Your task to perform on an android device: Go to display settings Image 0: 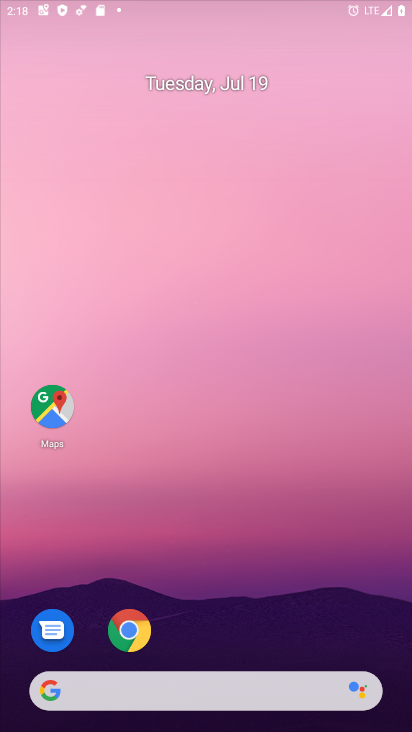
Step 0: press home button
Your task to perform on an android device: Go to display settings Image 1: 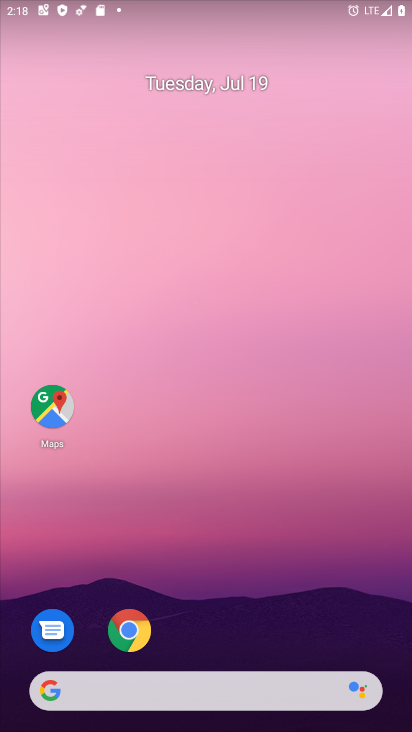
Step 1: drag from (219, 653) to (220, 64)
Your task to perform on an android device: Go to display settings Image 2: 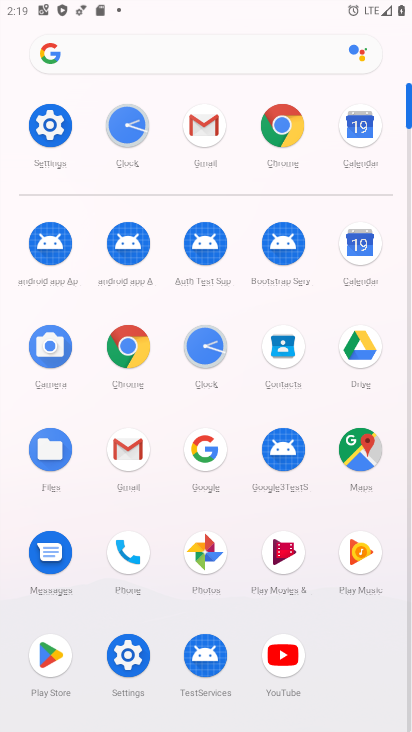
Step 2: click (124, 650)
Your task to perform on an android device: Go to display settings Image 3: 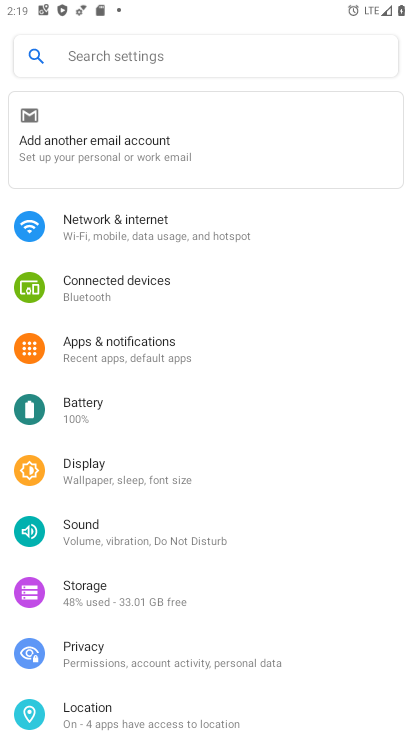
Step 3: click (120, 466)
Your task to perform on an android device: Go to display settings Image 4: 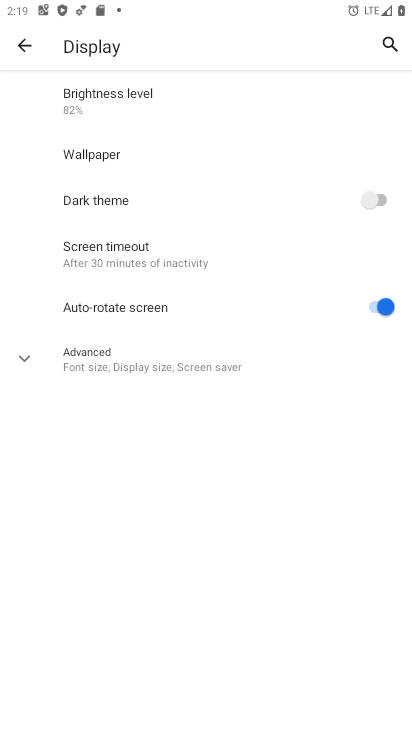
Step 4: click (20, 355)
Your task to perform on an android device: Go to display settings Image 5: 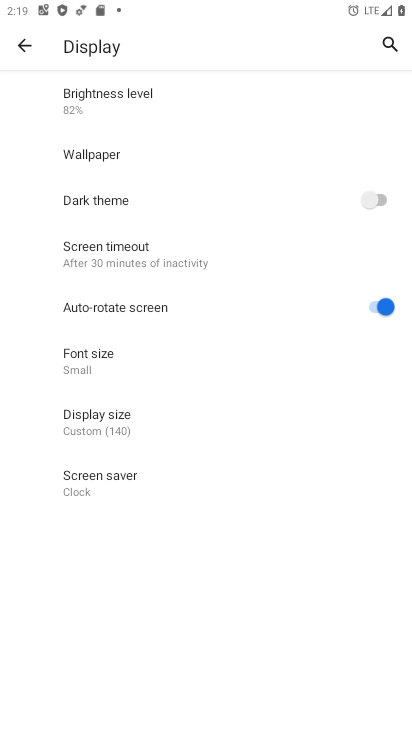
Step 5: task complete